Your task to perform on an android device: set an alarm Image 0: 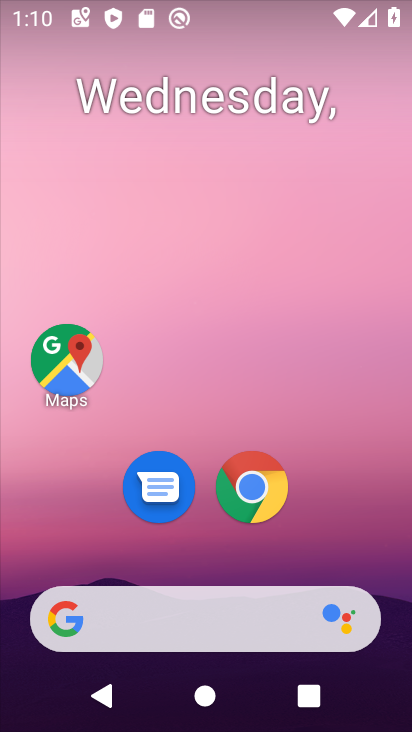
Step 0: drag from (209, 547) to (158, 12)
Your task to perform on an android device: set an alarm Image 1: 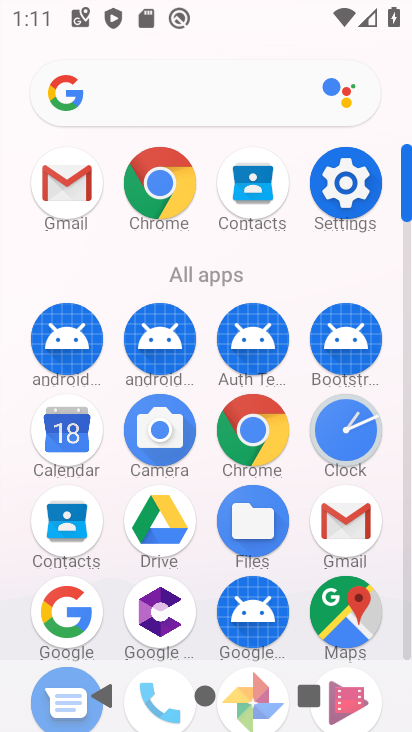
Step 1: click (343, 442)
Your task to perform on an android device: set an alarm Image 2: 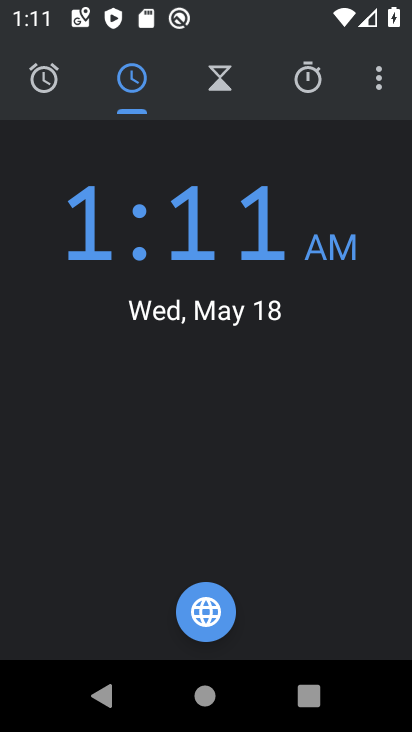
Step 2: click (43, 90)
Your task to perform on an android device: set an alarm Image 3: 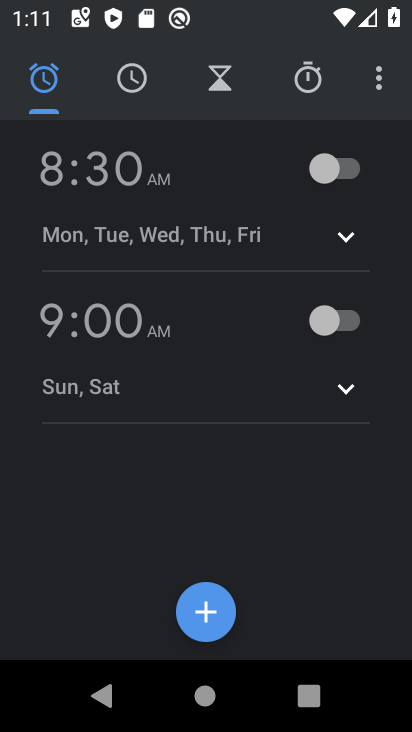
Step 3: click (102, 341)
Your task to perform on an android device: set an alarm Image 4: 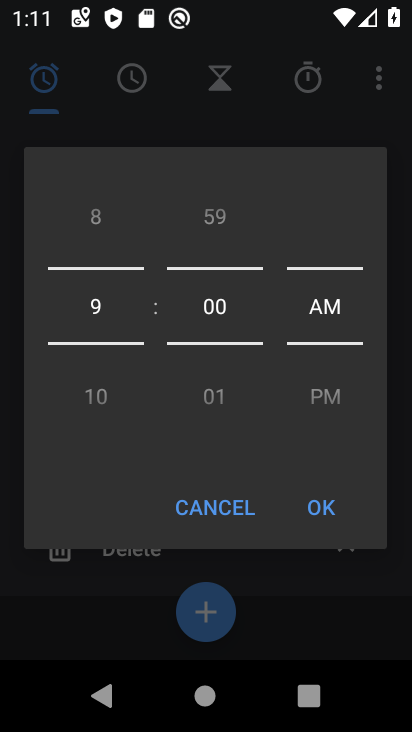
Step 4: drag from (104, 333) to (60, 469)
Your task to perform on an android device: set an alarm Image 5: 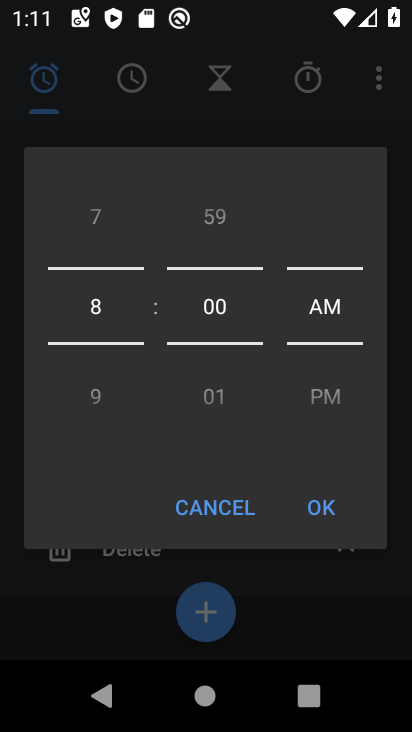
Step 5: drag from (220, 343) to (279, 12)
Your task to perform on an android device: set an alarm Image 6: 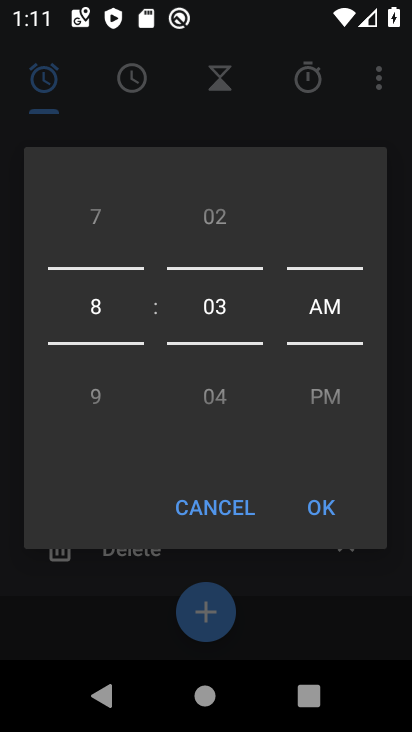
Step 6: drag from (203, 378) to (249, 119)
Your task to perform on an android device: set an alarm Image 7: 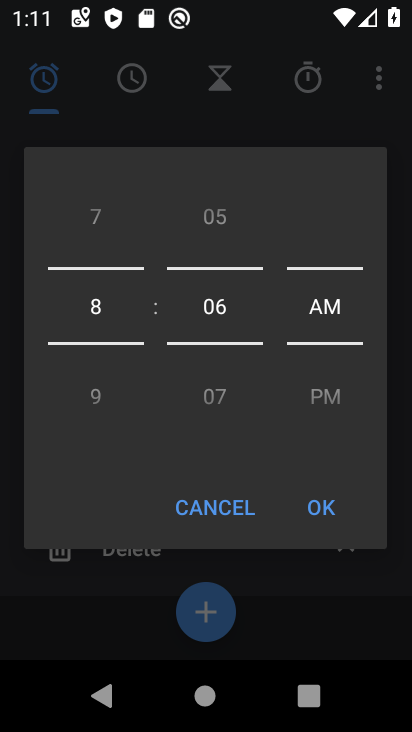
Step 7: drag from (330, 322) to (347, 148)
Your task to perform on an android device: set an alarm Image 8: 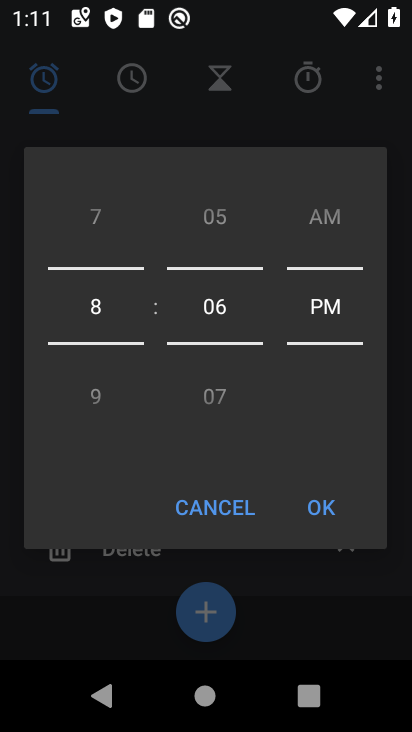
Step 8: click (320, 511)
Your task to perform on an android device: set an alarm Image 9: 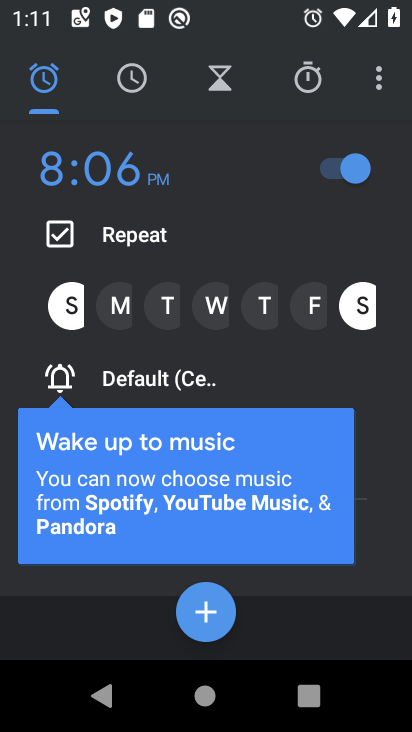
Step 9: click (310, 296)
Your task to perform on an android device: set an alarm Image 10: 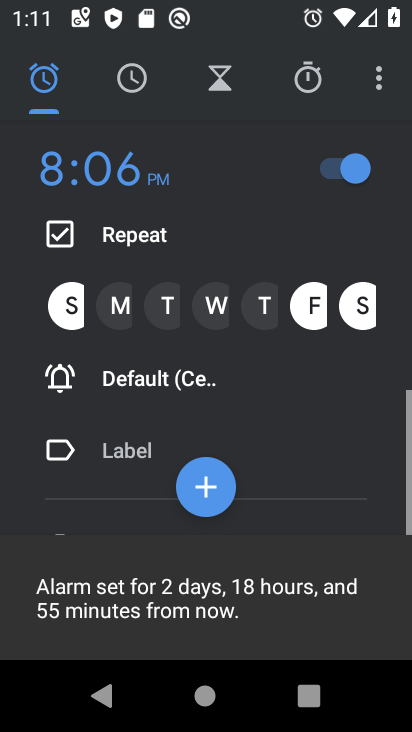
Step 10: click (257, 310)
Your task to perform on an android device: set an alarm Image 11: 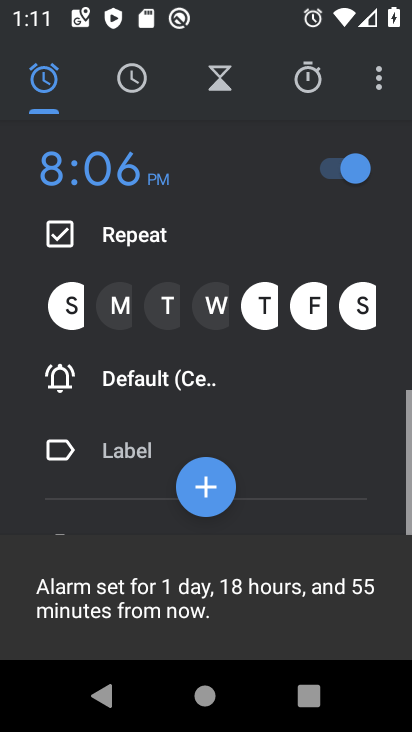
Step 11: task complete